Your task to perform on an android device: See recent photos Image 0: 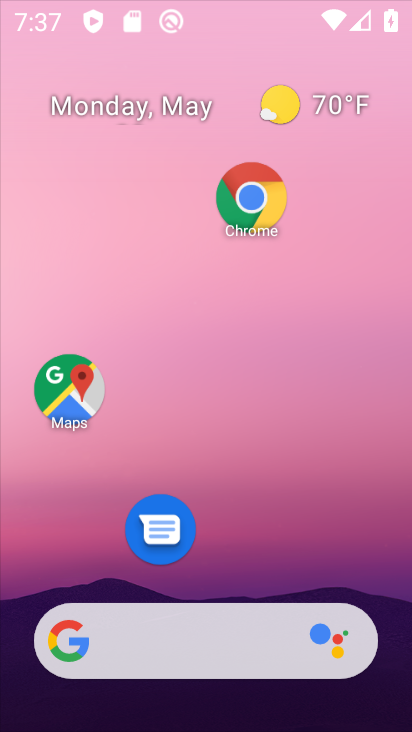
Step 0: press home button
Your task to perform on an android device: See recent photos Image 1: 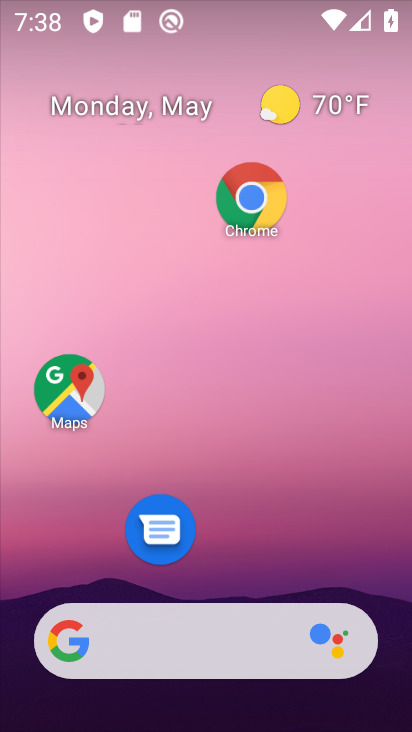
Step 1: click (223, 606)
Your task to perform on an android device: See recent photos Image 2: 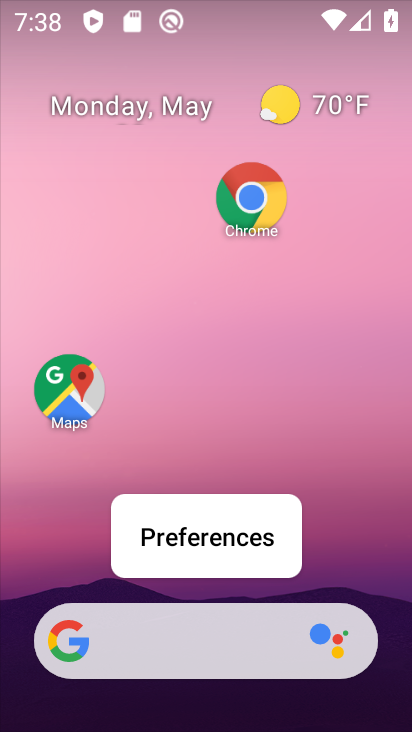
Step 2: click (329, 446)
Your task to perform on an android device: See recent photos Image 3: 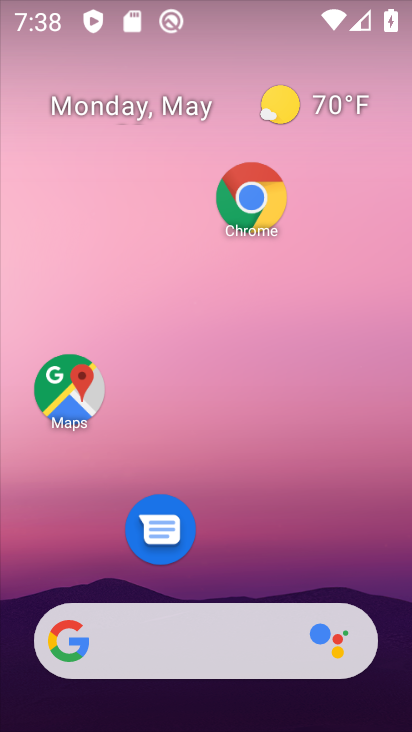
Step 3: drag from (238, 571) to (251, 77)
Your task to perform on an android device: See recent photos Image 4: 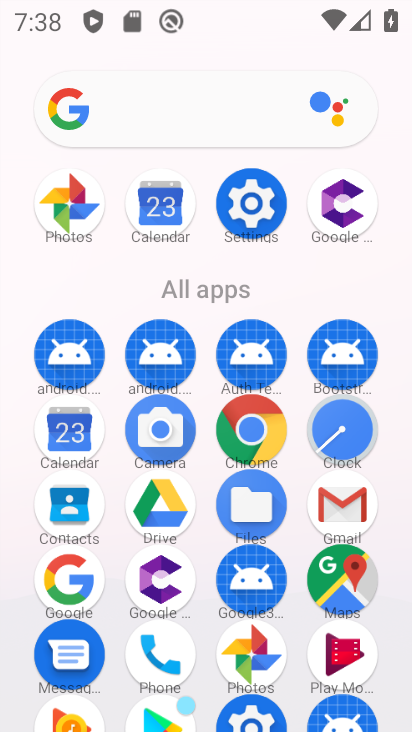
Step 4: drag from (202, 629) to (225, 155)
Your task to perform on an android device: See recent photos Image 5: 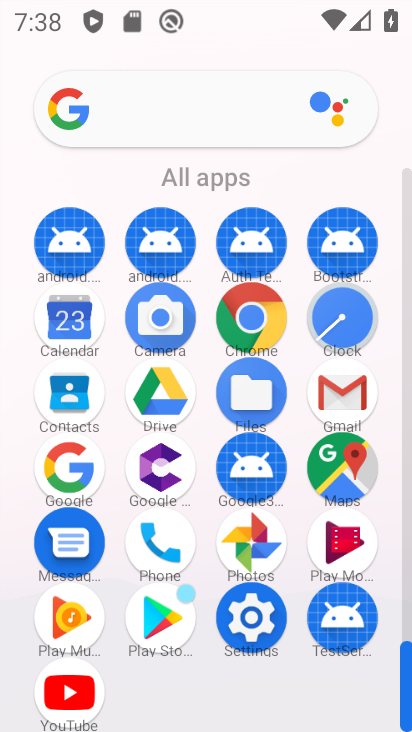
Step 5: click (248, 534)
Your task to perform on an android device: See recent photos Image 6: 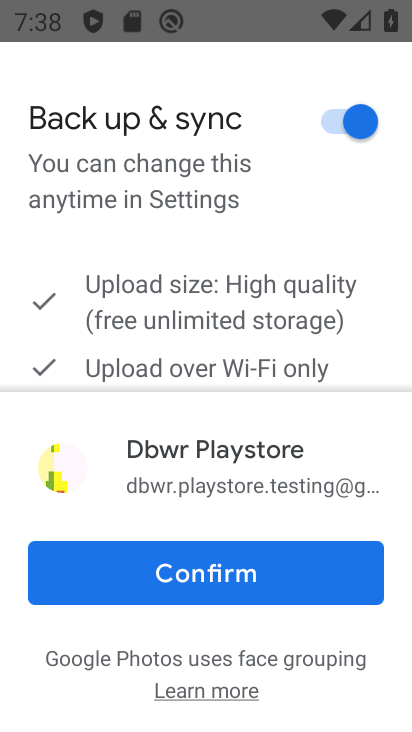
Step 6: click (213, 581)
Your task to perform on an android device: See recent photos Image 7: 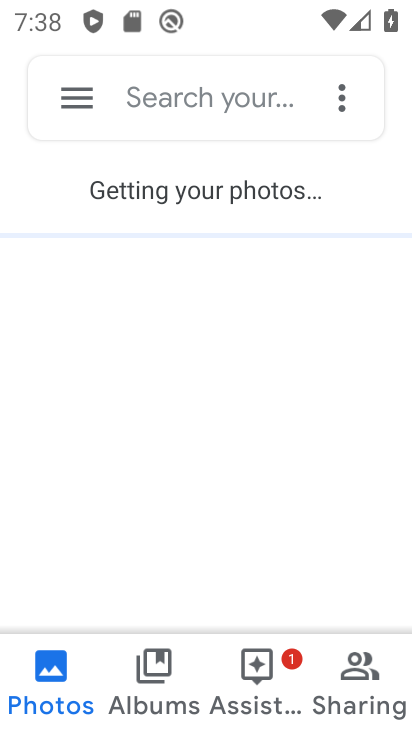
Step 7: task complete